Your task to perform on an android device: Open the web browser Image 0: 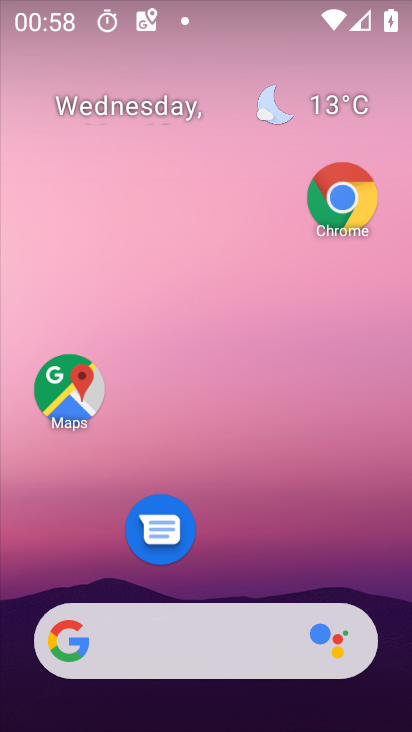
Step 0: click (144, 618)
Your task to perform on an android device: Open the web browser Image 1: 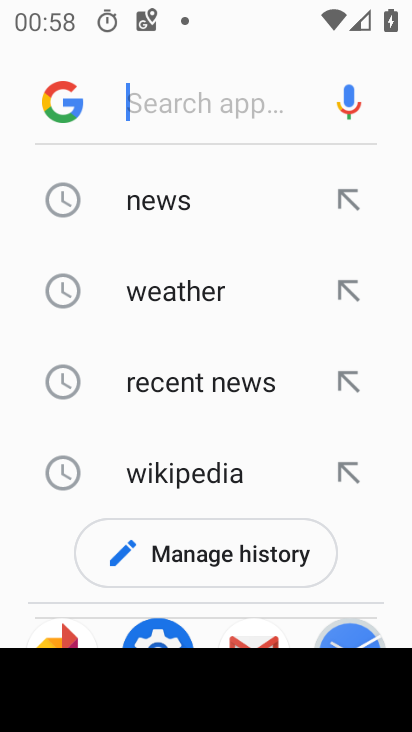
Step 1: task complete